Your task to perform on an android device: turn on improve location accuracy Image 0: 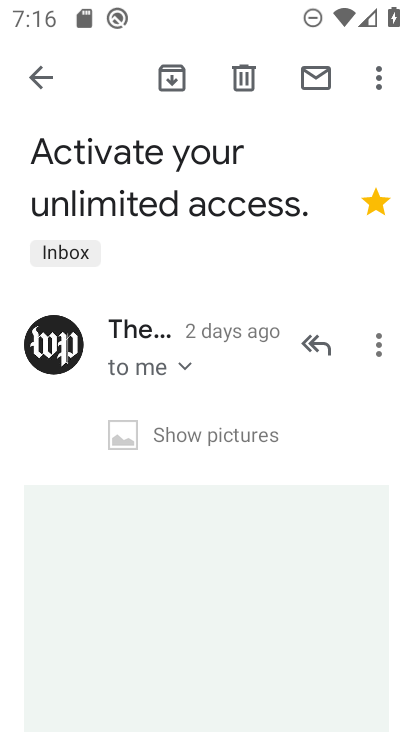
Step 0: press home button
Your task to perform on an android device: turn on improve location accuracy Image 1: 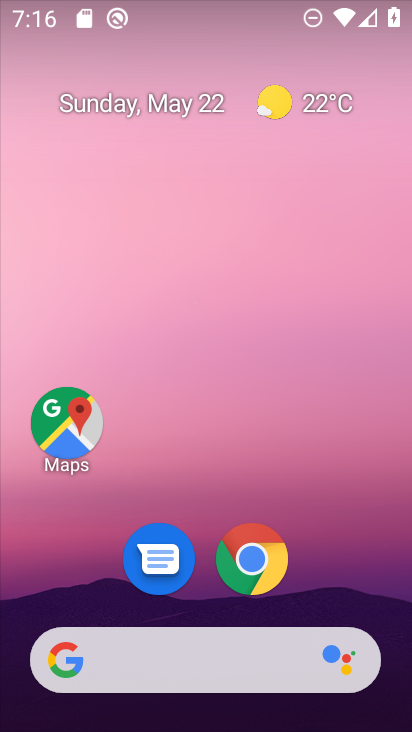
Step 1: drag from (302, 678) to (181, 121)
Your task to perform on an android device: turn on improve location accuracy Image 2: 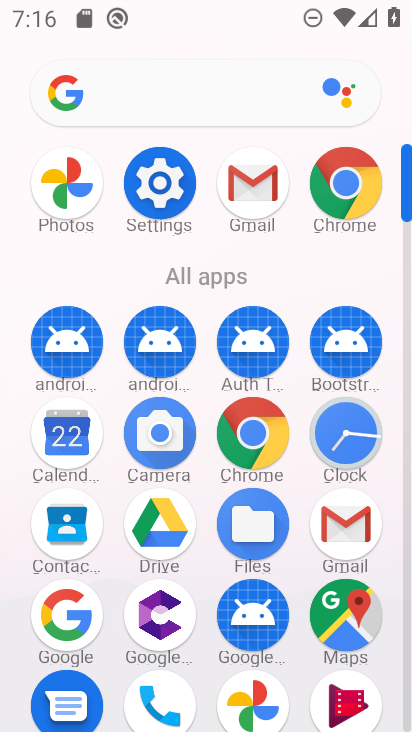
Step 2: click (172, 189)
Your task to perform on an android device: turn on improve location accuracy Image 3: 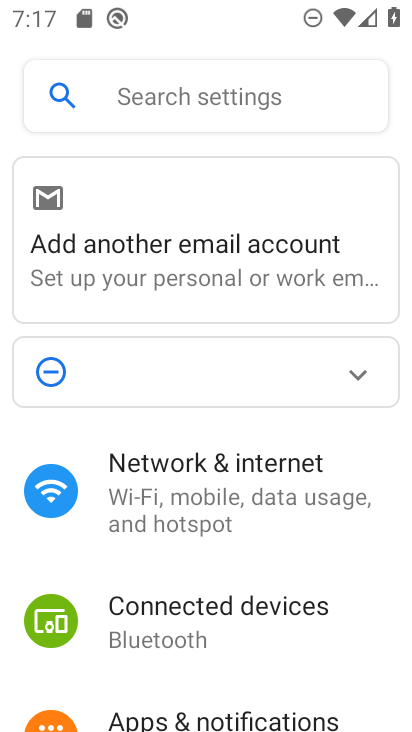
Step 3: click (212, 118)
Your task to perform on an android device: turn on improve location accuracy Image 4: 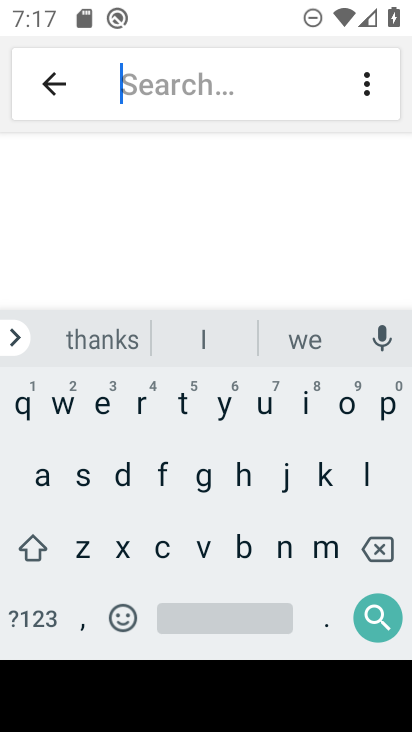
Step 4: click (370, 474)
Your task to perform on an android device: turn on improve location accuracy Image 5: 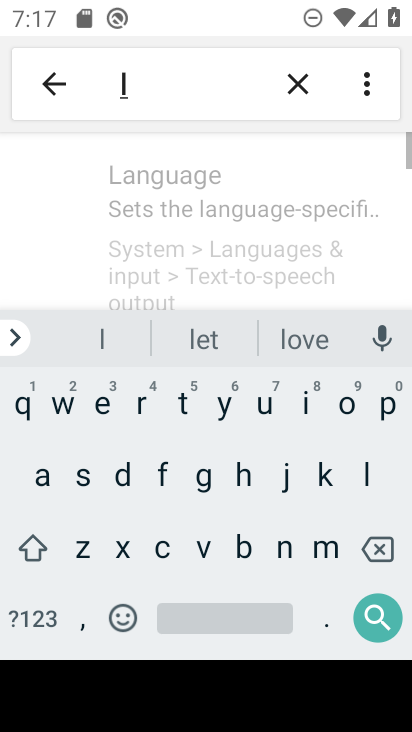
Step 5: click (338, 399)
Your task to perform on an android device: turn on improve location accuracy Image 6: 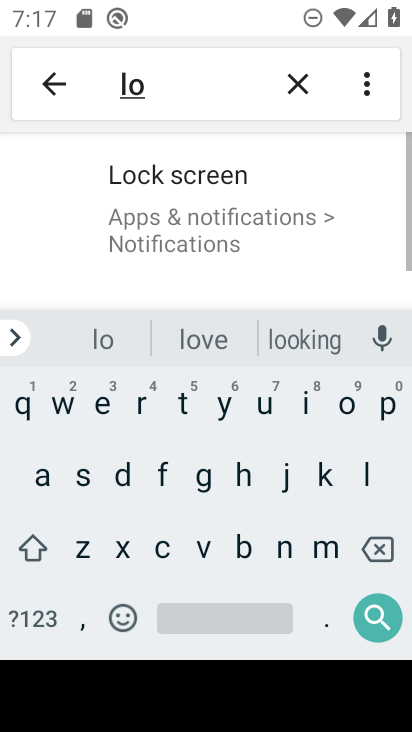
Step 6: drag from (181, 247) to (158, 155)
Your task to perform on an android device: turn on improve location accuracy Image 7: 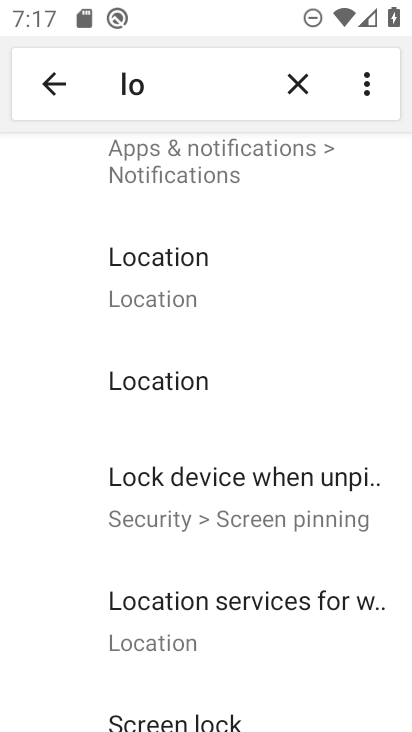
Step 7: click (181, 279)
Your task to perform on an android device: turn on improve location accuracy Image 8: 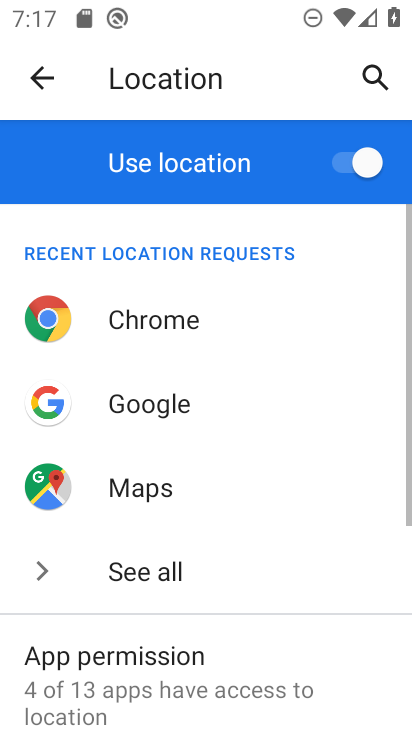
Step 8: drag from (244, 612) to (229, 300)
Your task to perform on an android device: turn on improve location accuracy Image 9: 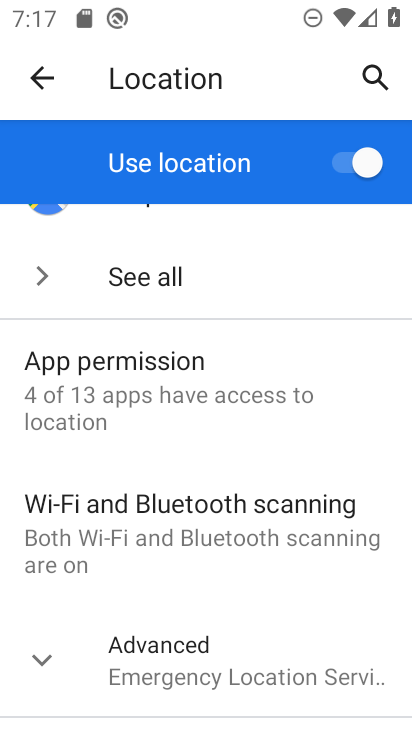
Step 9: click (151, 647)
Your task to perform on an android device: turn on improve location accuracy Image 10: 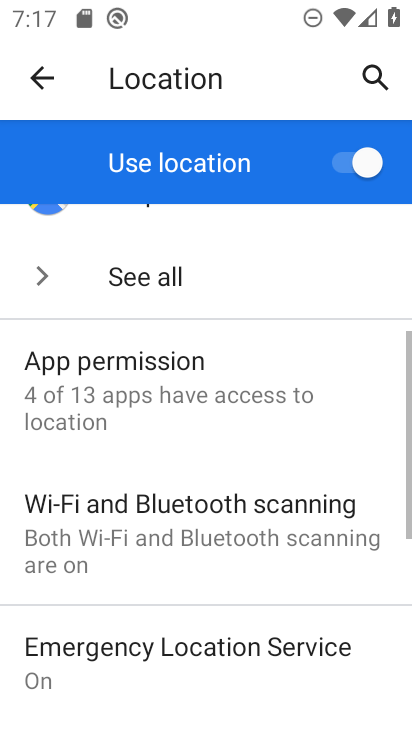
Step 10: drag from (154, 640) to (138, 390)
Your task to perform on an android device: turn on improve location accuracy Image 11: 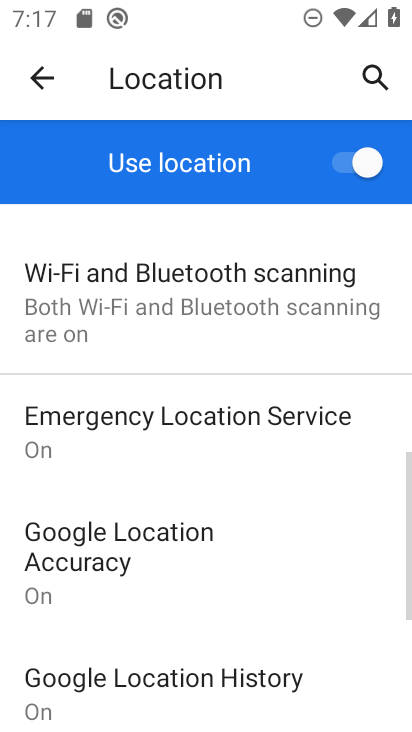
Step 11: click (99, 549)
Your task to perform on an android device: turn on improve location accuracy Image 12: 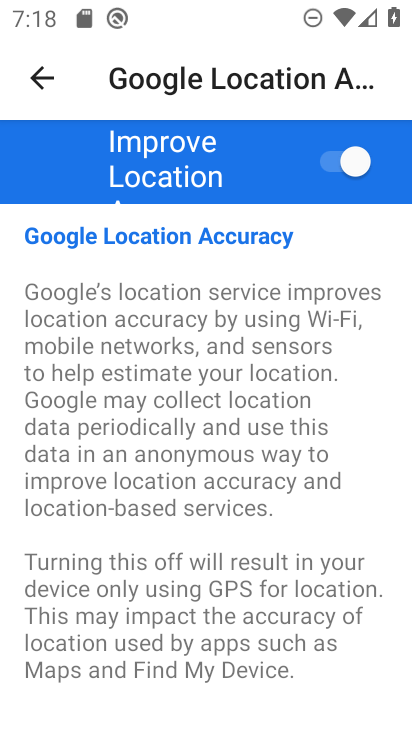
Step 12: click (345, 192)
Your task to perform on an android device: turn on improve location accuracy Image 13: 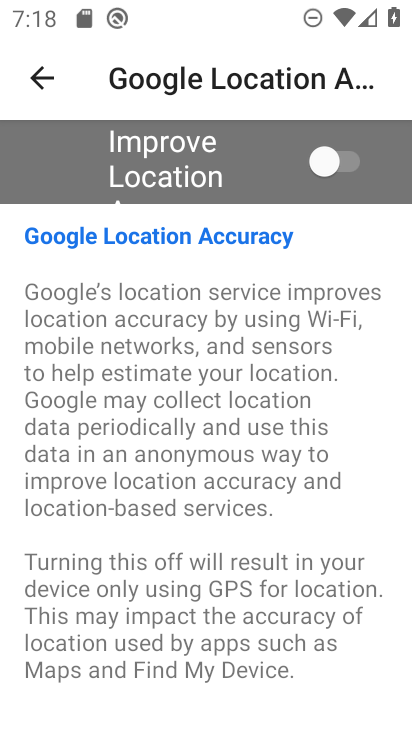
Step 13: click (345, 191)
Your task to perform on an android device: turn on improve location accuracy Image 14: 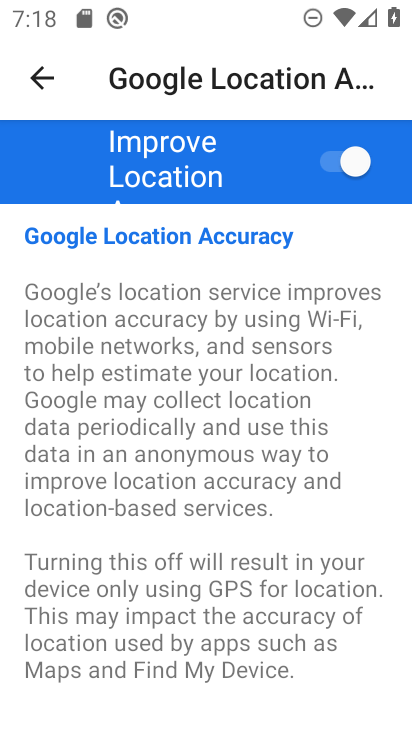
Step 14: task complete